Your task to perform on an android device: delete the emails in spam in the gmail app Image 0: 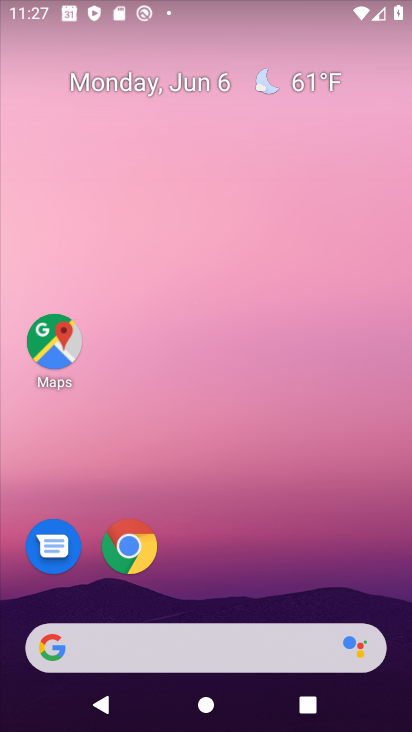
Step 0: drag from (233, 593) to (340, 86)
Your task to perform on an android device: delete the emails in spam in the gmail app Image 1: 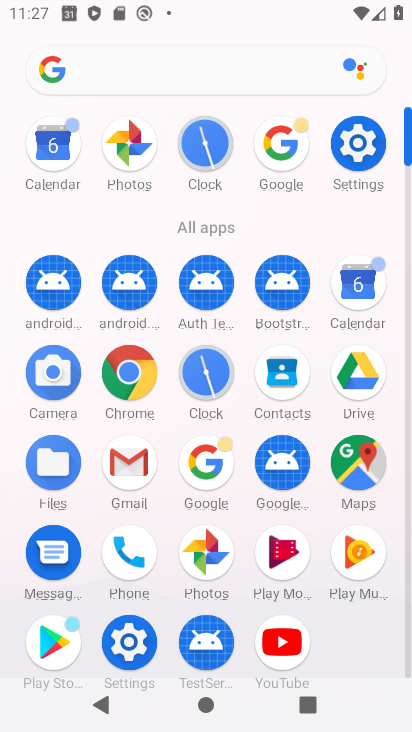
Step 1: click (133, 466)
Your task to perform on an android device: delete the emails in spam in the gmail app Image 2: 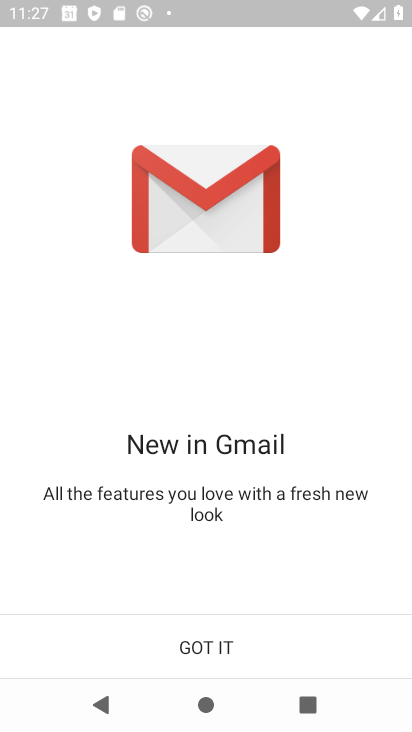
Step 2: click (229, 650)
Your task to perform on an android device: delete the emails in spam in the gmail app Image 3: 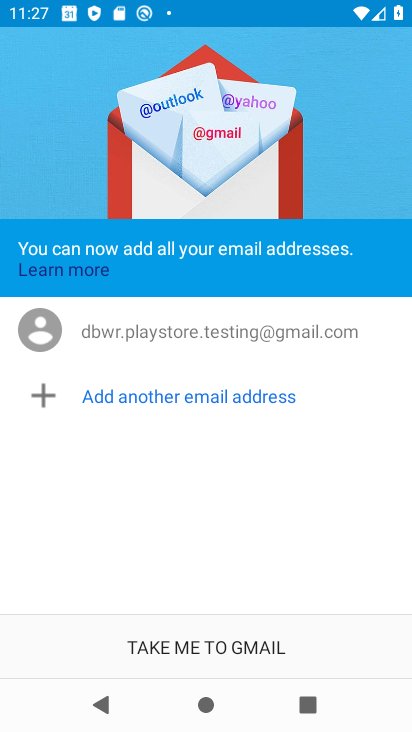
Step 3: click (202, 641)
Your task to perform on an android device: delete the emails in spam in the gmail app Image 4: 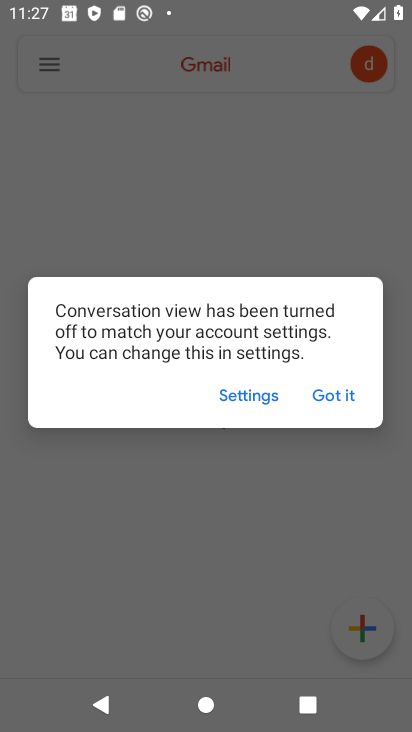
Step 4: click (332, 396)
Your task to perform on an android device: delete the emails in spam in the gmail app Image 5: 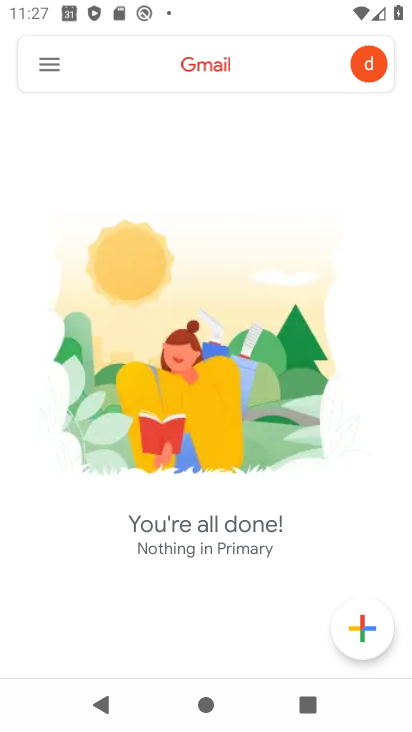
Step 5: click (41, 60)
Your task to perform on an android device: delete the emails in spam in the gmail app Image 6: 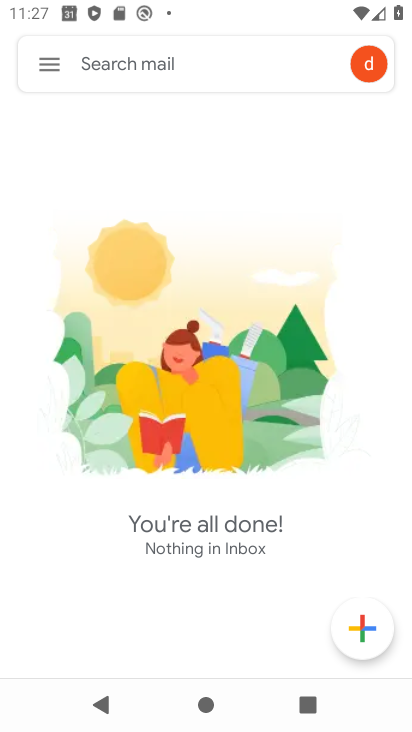
Step 6: click (44, 63)
Your task to perform on an android device: delete the emails in spam in the gmail app Image 7: 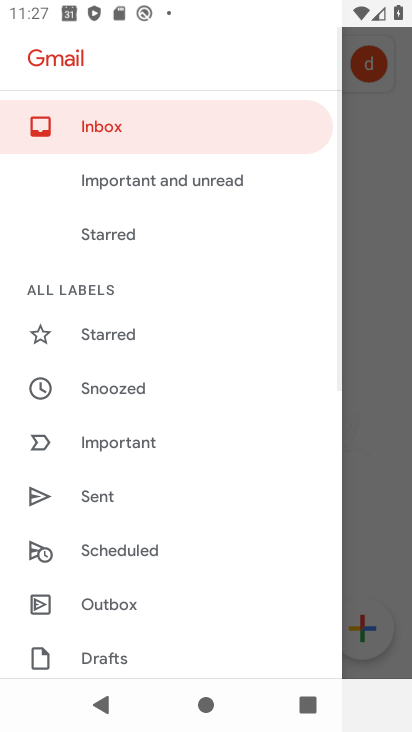
Step 7: drag from (120, 639) to (187, 150)
Your task to perform on an android device: delete the emails in spam in the gmail app Image 8: 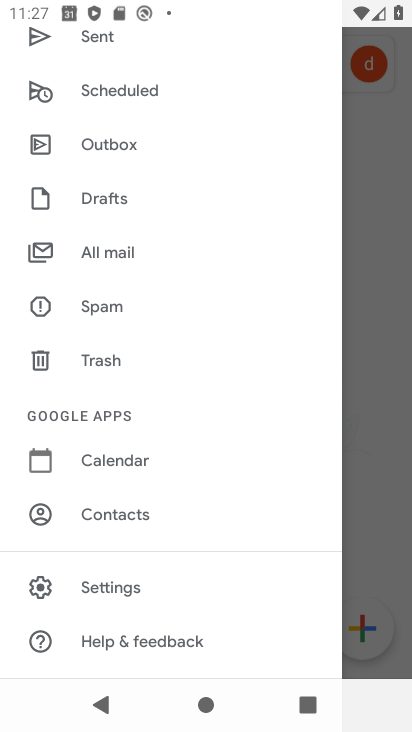
Step 8: click (125, 296)
Your task to perform on an android device: delete the emails in spam in the gmail app Image 9: 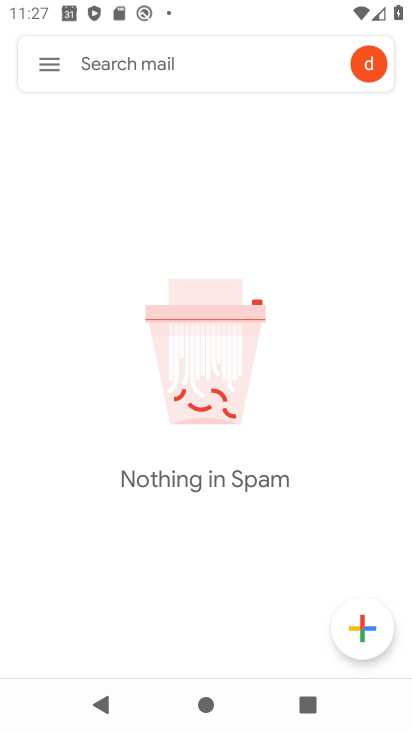
Step 9: task complete